Your task to perform on an android device: turn on the 12-hour format for clock Image 0: 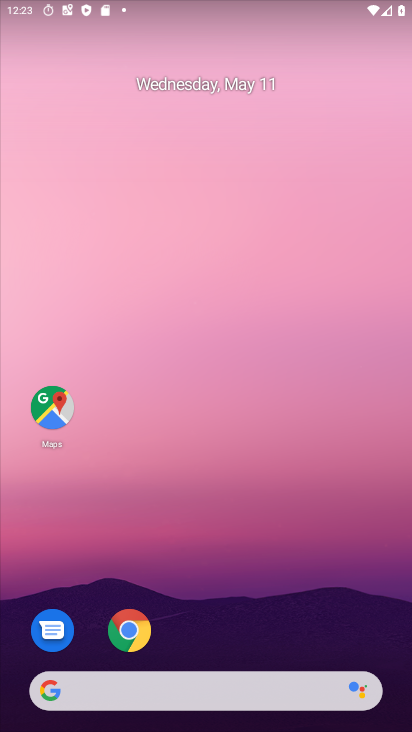
Step 0: drag from (252, 613) to (334, 6)
Your task to perform on an android device: turn on the 12-hour format for clock Image 1: 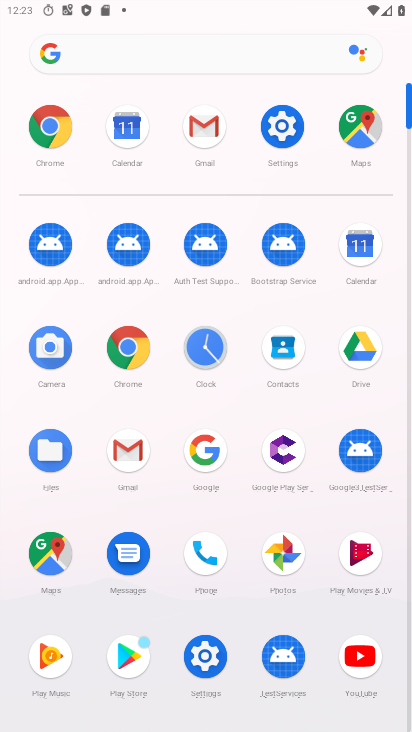
Step 1: click (208, 343)
Your task to perform on an android device: turn on the 12-hour format for clock Image 2: 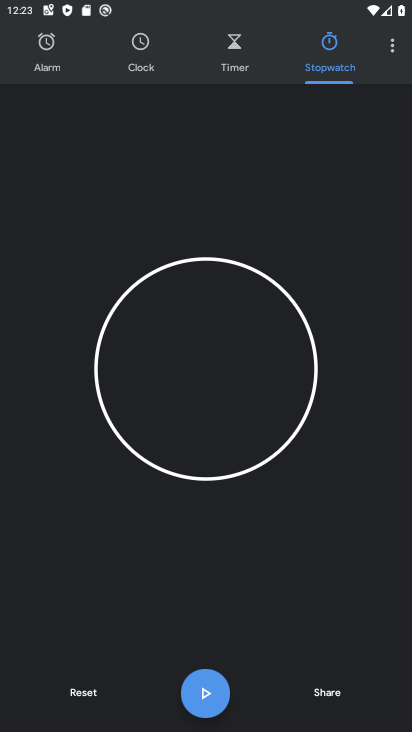
Step 2: drag from (397, 42) to (270, 93)
Your task to perform on an android device: turn on the 12-hour format for clock Image 3: 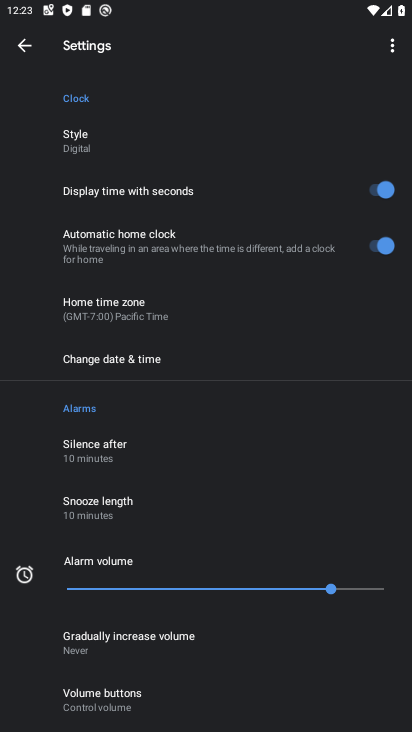
Step 3: click (164, 363)
Your task to perform on an android device: turn on the 12-hour format for clock Image 4: 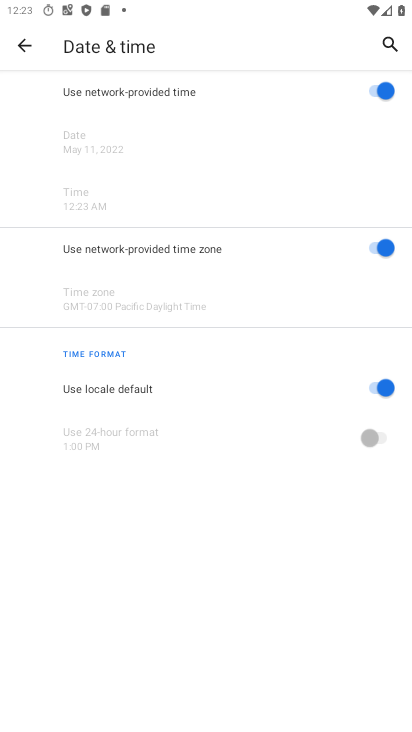
Step 4: task complete